Your task to perform on an android device: search for starred emails in the gmail app Image 0: 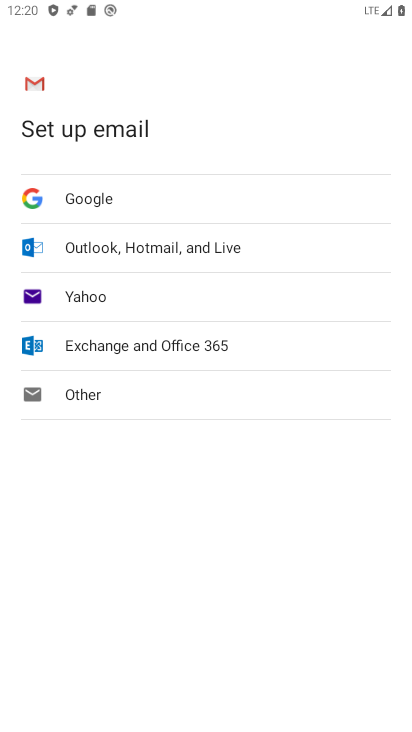
Step 0: press home button
Your task to perform on an android device: search for starred emails in the gmail app Image 1: 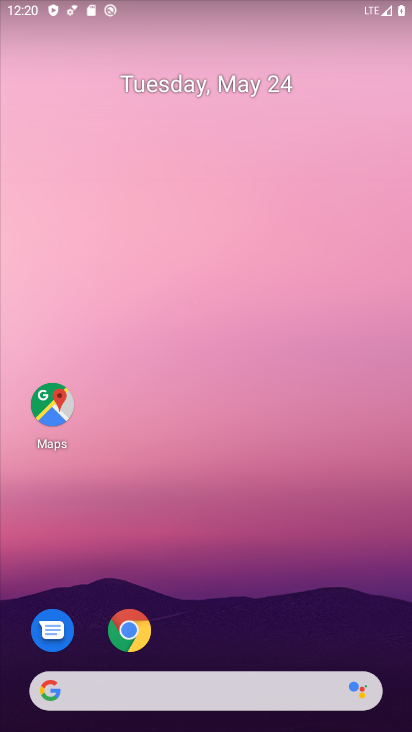
Step 1: drag from (257, 611) to (307, 201)
Your task to perform on an android device: search for starred emails in the gmail app Image 2: 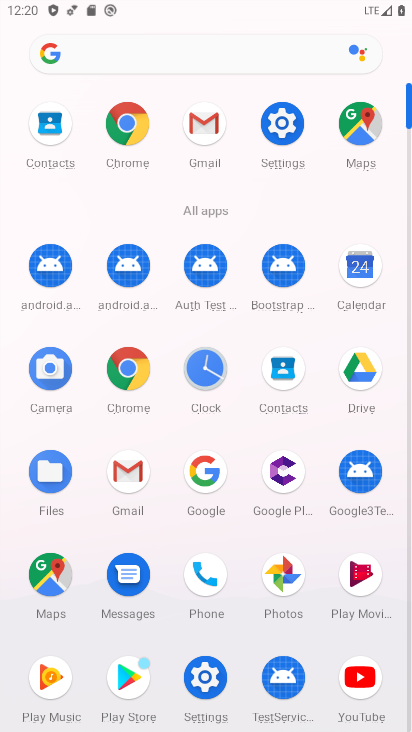
Step 2: click (127, 471)
Your task to perform on an android device: search for starred emails in the gmail app Image 3: 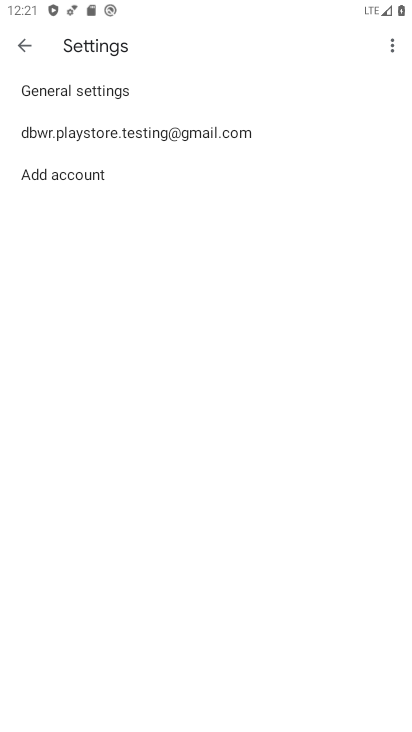
Step 3: click (24, 52)
Your task to perform on an android device: search for starred emails in the gmail app Image 4: 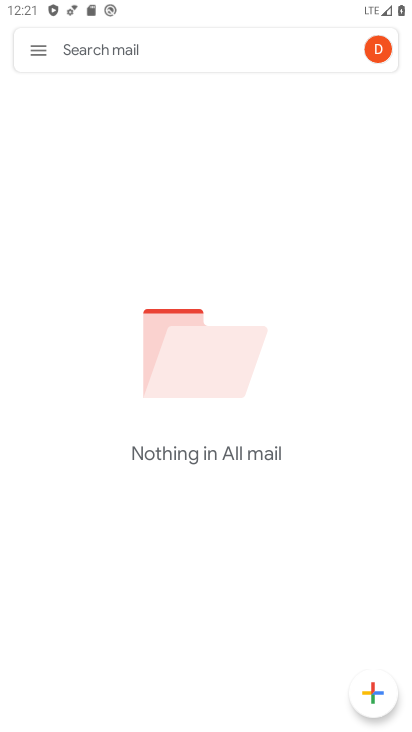
Step 4: click (38, 52)
Your task to perform on an android device: search for starred emails in the gmail app Image 5: 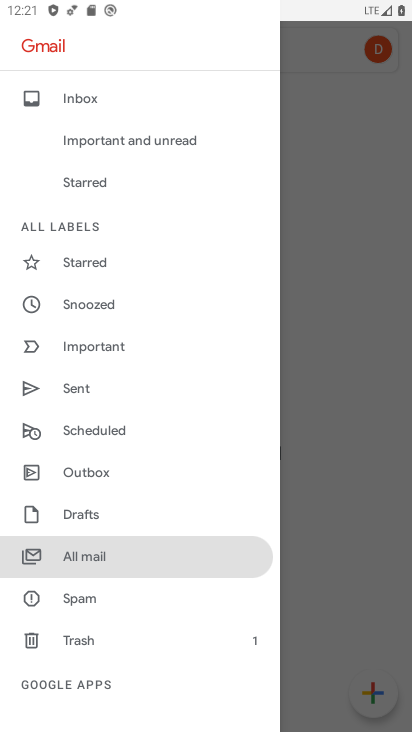
Step 5: click (121, 265)
Your task to perform on an android device: search for starred emails in the gmail app Image 6: 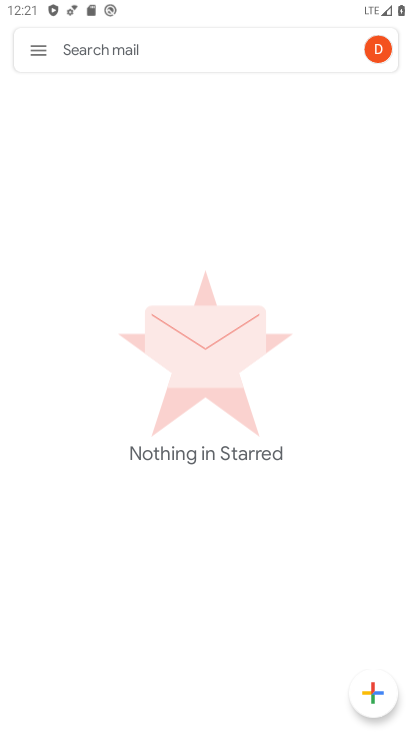
Step 6: task complete